Your task to perform on an android device: Open Chrome and go to settings Image 0: 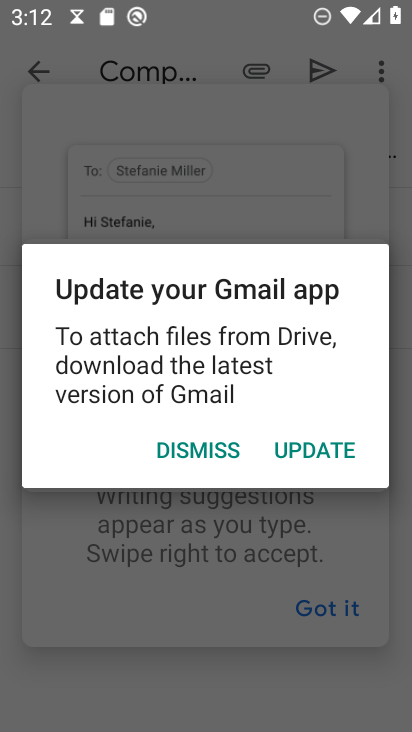
Step 0: press home button
Your task to perform on an android device: Open Chrome and go to settings Image 1: 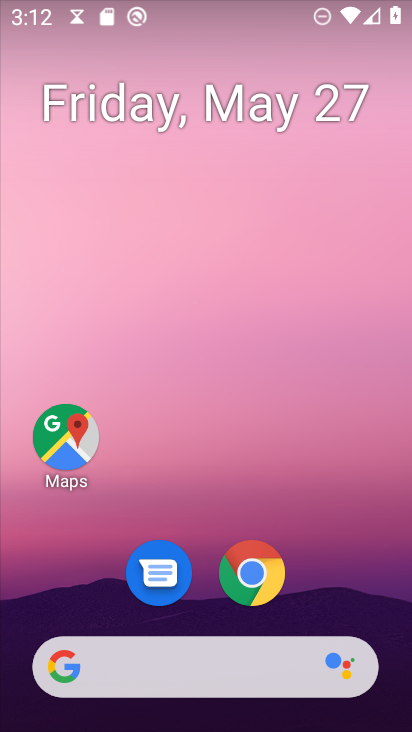
Step 1: click (248, 580)
Your task to perform on an android device: Open Chrome and go to settings Image 2: 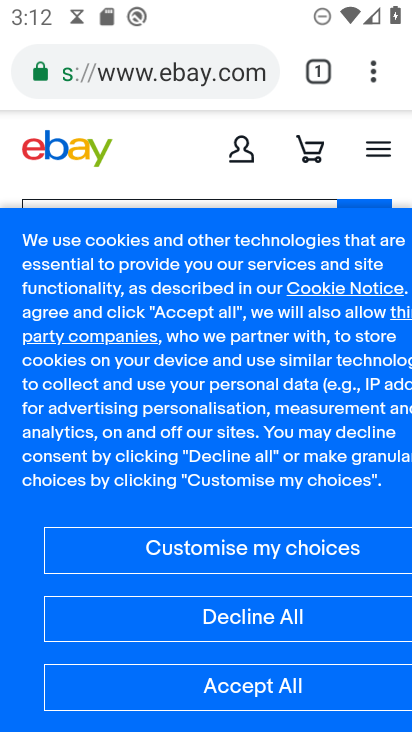
Step 2: click (383, 61)
Your task to perform on an android device: Open Chrome and go to settings Image 3: 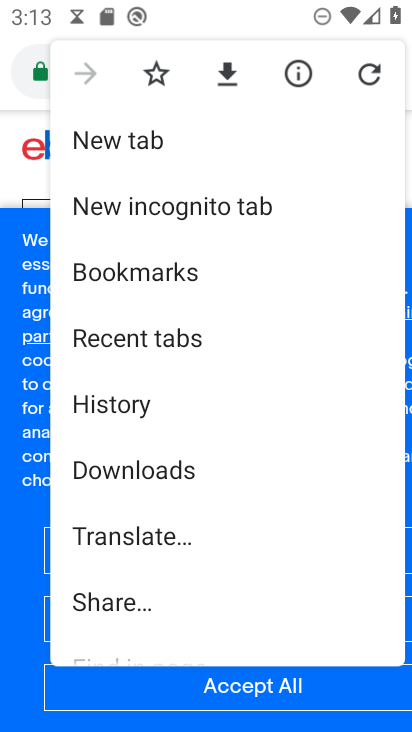
Step 3: drag from (177, 593) to (209, 234)
Your task to perform on an android device: Open Chrome and go to settings Image 4: 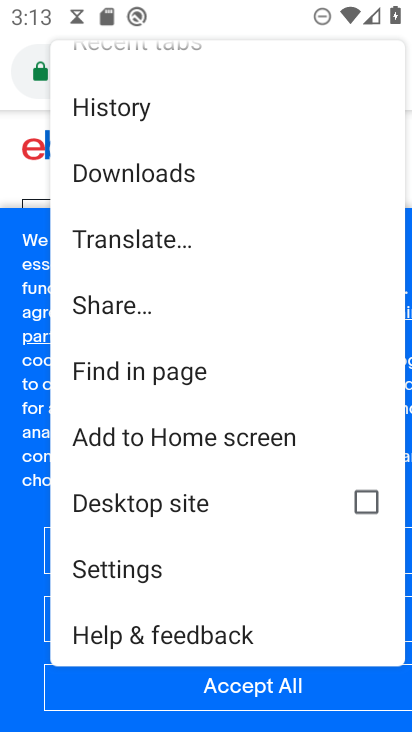
Step 4: click (140, 568)
Your task to perform on an android device: Open Chrome and go to settings Image 5: 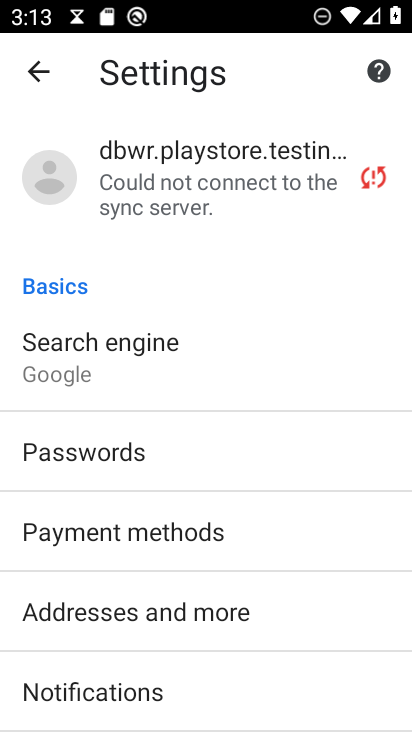
Step 5: task complete